Your task to perform on an android device: Go to settings Image 0: 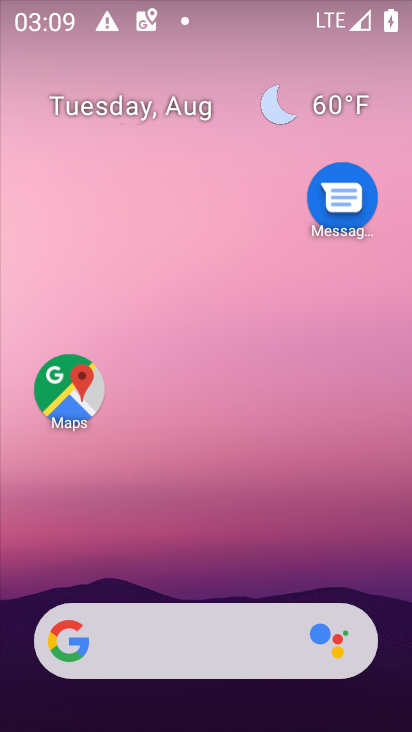
Step 0: drag from (250, 598) to (227, 47)
Your task to perform on an android device: Go to settings Image 1: 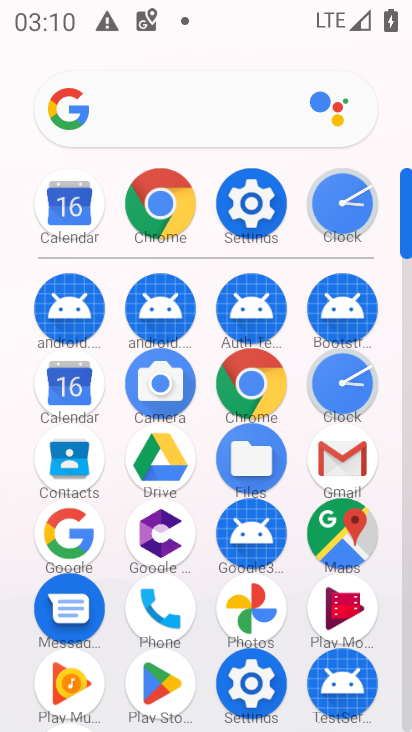
Step 1: click (259, 185)
Your task to perform on an android device: Go to settings Image 2: 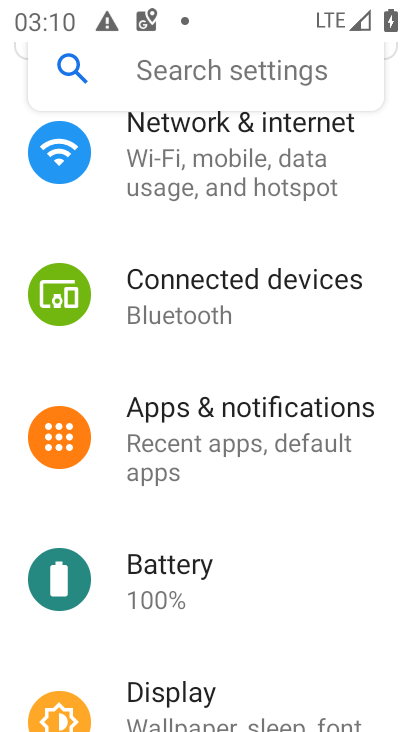
Step 2: task complete